Your task to perform on an android device: turn on data saver in the chrome app Image 0: 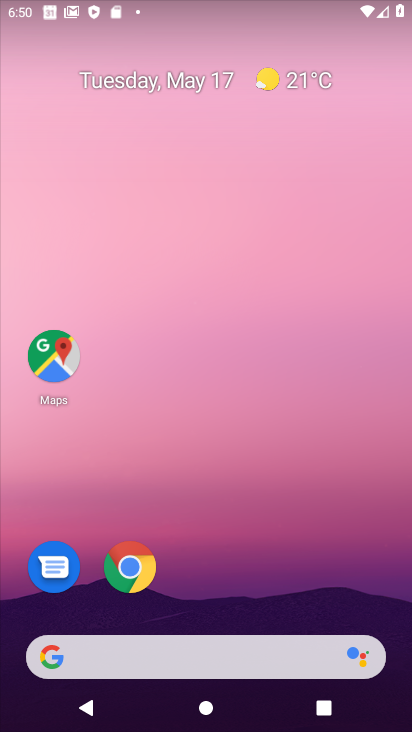
Step 0: click (124, 568)
Your task to perform on an android device: turn on data saver in the chrome app Image 1: 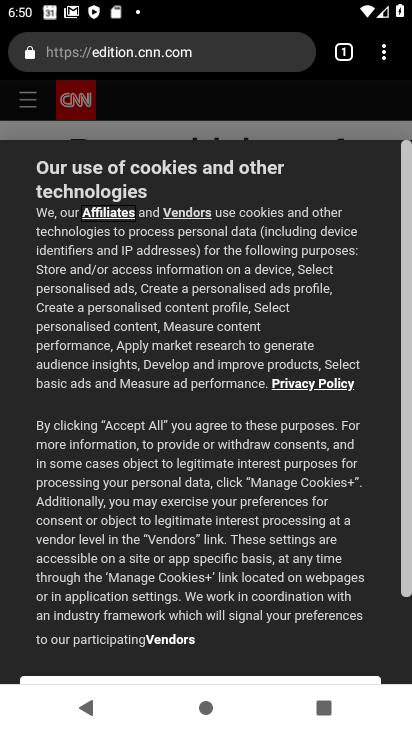
Step 1: click (383, 53)
Your task to perform on an android device: turn on data saver in the chrome app Image 2: 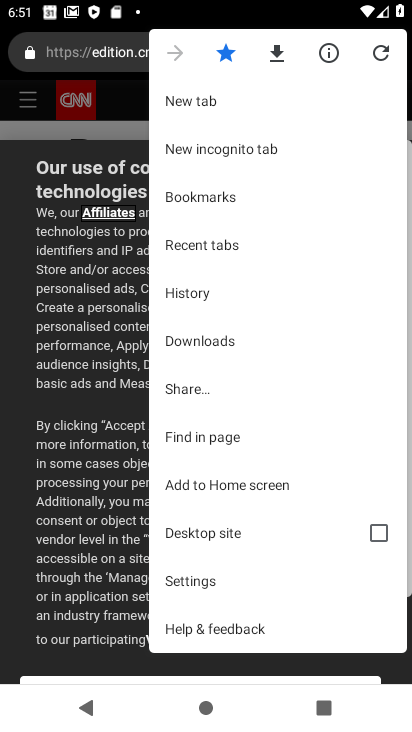
Step 2: click (183, 583)
Your task to perform on an android device: turn on data saver in the chrome app Image 3: 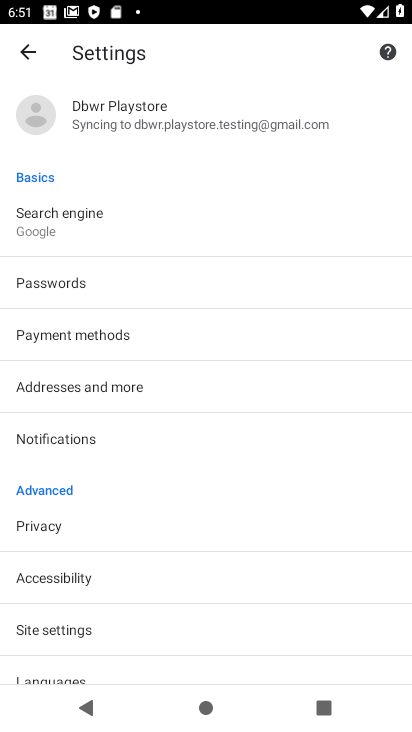
Step 3: drag from (275, 521) to (203, 215)
Your task to perform on an android device: turn on data saver in the chrome app Image 4: 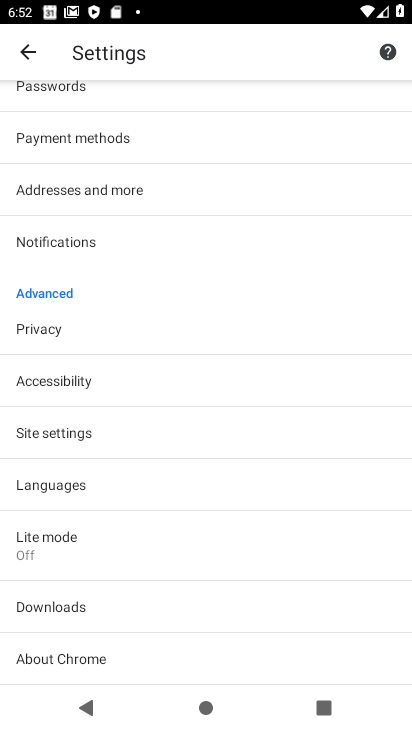
Step 4: click (56, 538)
Your task to perform on an android device: turn on data saver in the chrome app Image 5: 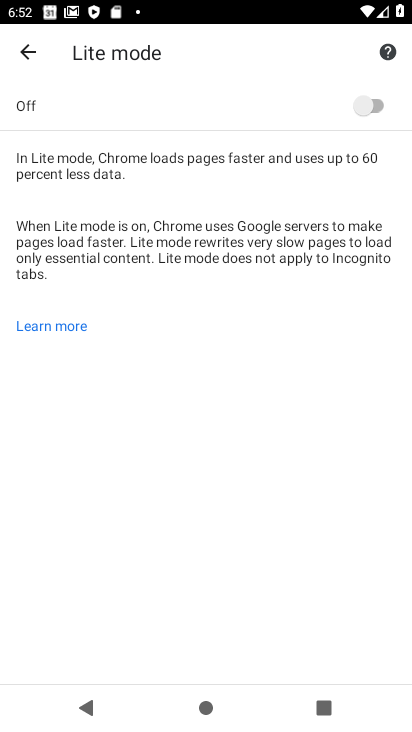
Step 5: click (362, 105)
Your task to perform on an android device: turn on data saver in the chrome app Image 6: 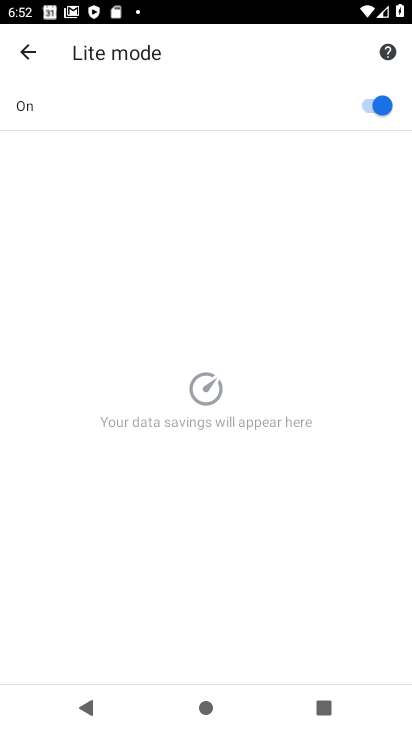
Step 6: task complete